Your task to perform on an android device: Show me productivity apps on the Play Store Image 0: 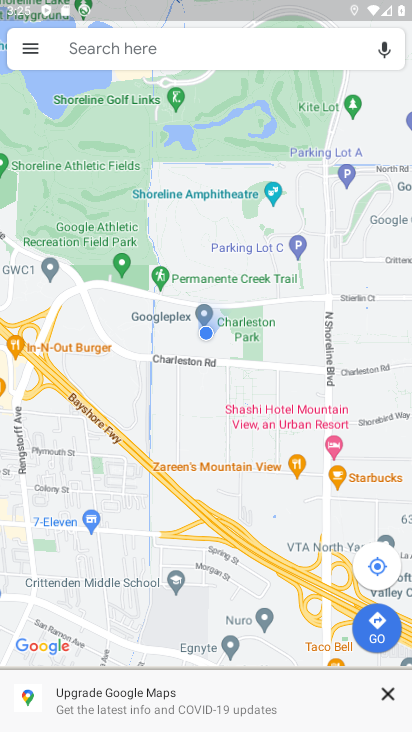
Step 0: click (226, 63)
Your task to perform on an android device: Show me productivity apps on the Play Store Image 1: 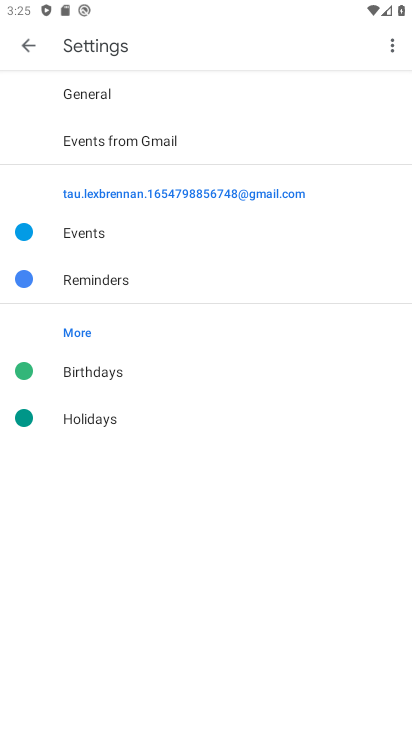
Step 1: press home button
Your task to perform on an android device: Show me productivity apps on the Play Store Image 2: 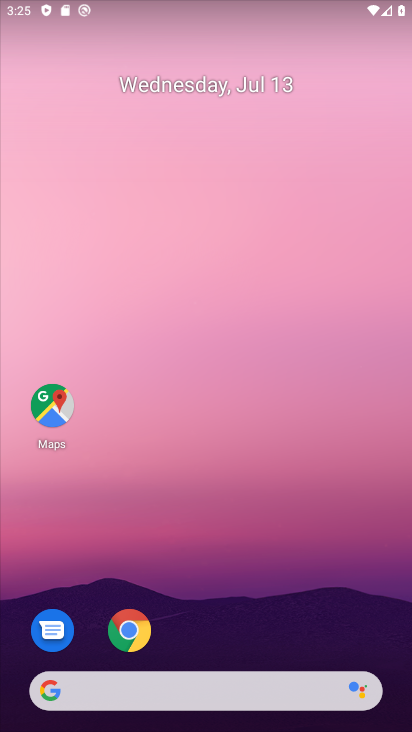
Step 2: drag from (187, 619) to (178, 76)
Your task to perform on an android device: Show me productivity apps on the Play Store Image 3: 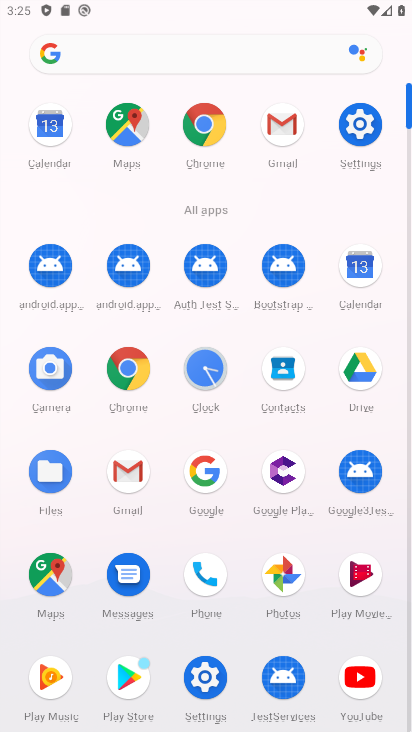
Step 3: click (126, 677)
Your task to perform on an android device: Show me productivity apps on the Play Store Image 4: 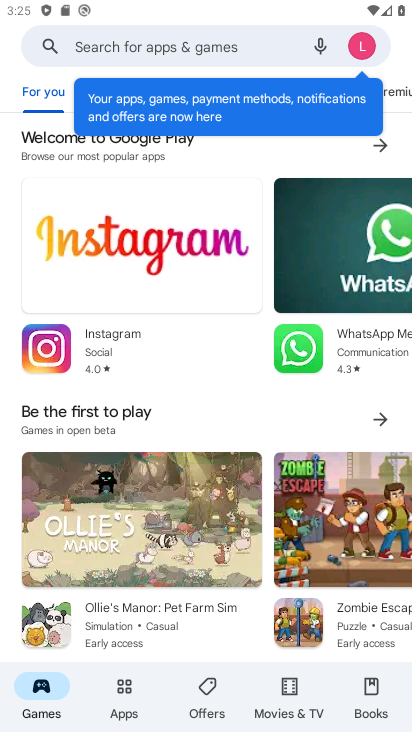
Step 4: click (122, 692)
Your task to perform on an android device: Show me productivity apps on the Play Store Image 5: 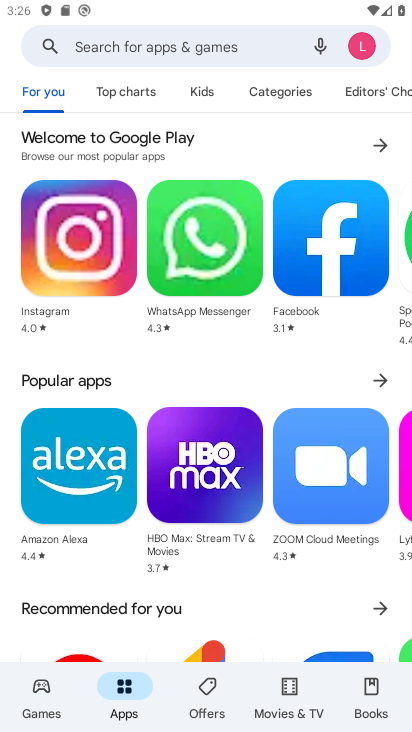
Step 5: task complete